Your task to perform on an android device: Go to Android settings Image 0: 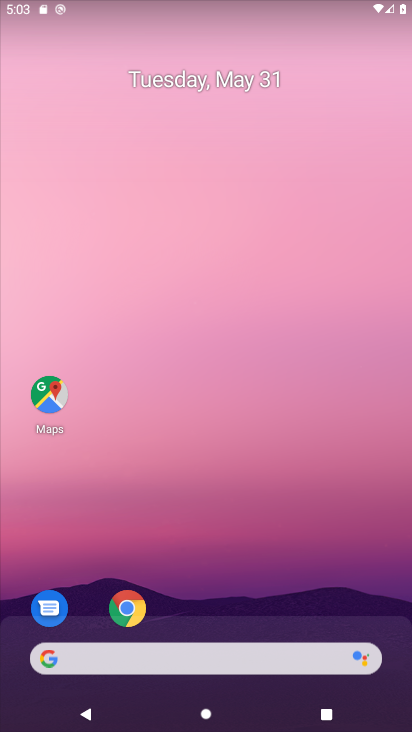
Step 0: drag from (223, 650) to (259, 161)
Your task to perform on an android device: Go to Android settings Image 1: 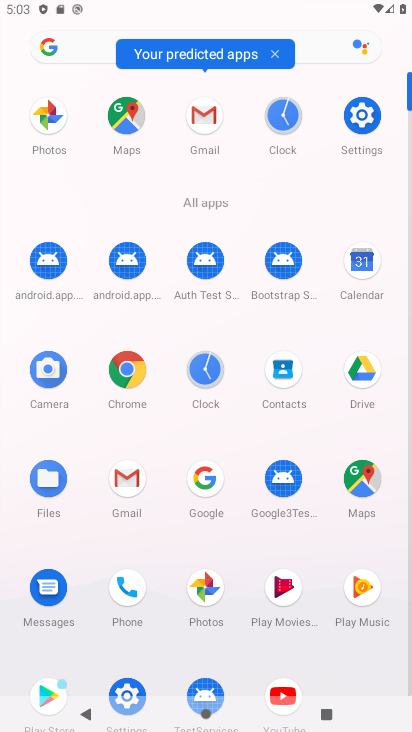
Step 1: click (372, 99)
Your task to perform on an android device: Go to Android settings Image 2: 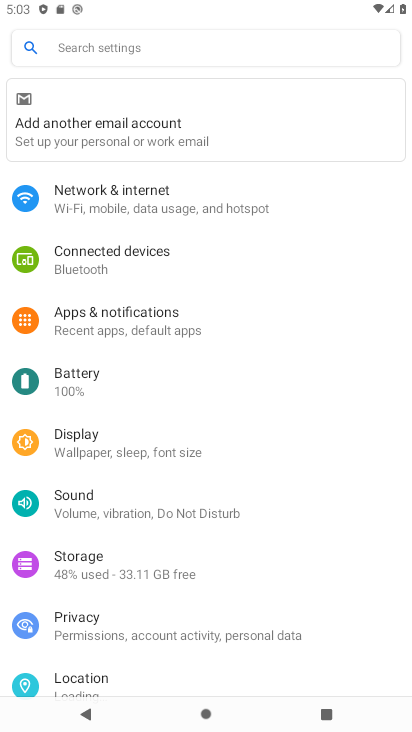
Step 2: task complete